Your task to perform on an android device: turn on wifi Image 0: 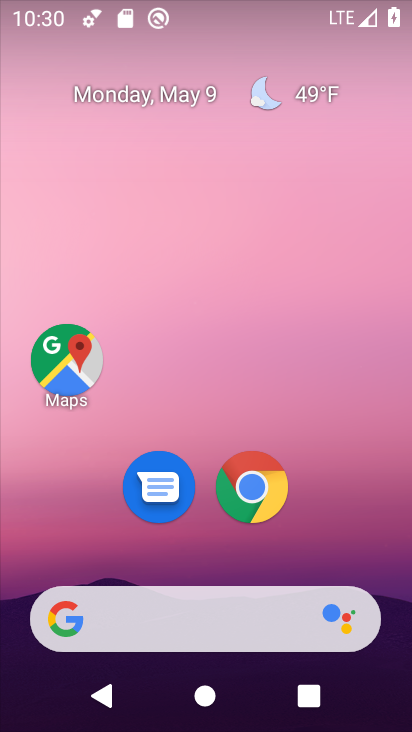
Step 0: drag from (333, 515) to (144, 81)
Your task to perform on an android device: turn on wifi Image 1: 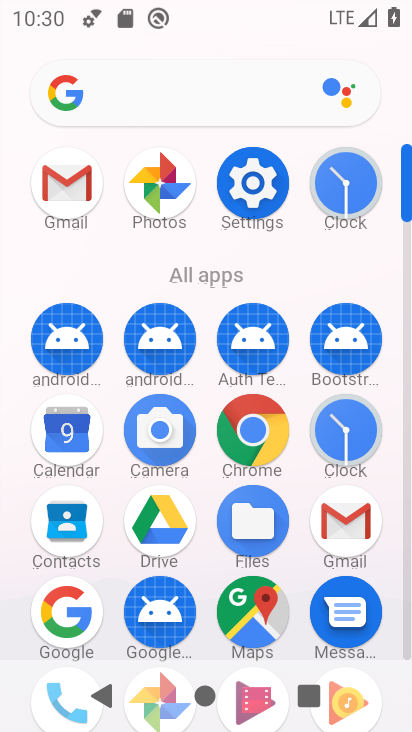
Step 1: click (250, 189)
Your task to perform on an android device: turn on wifi Image 2: 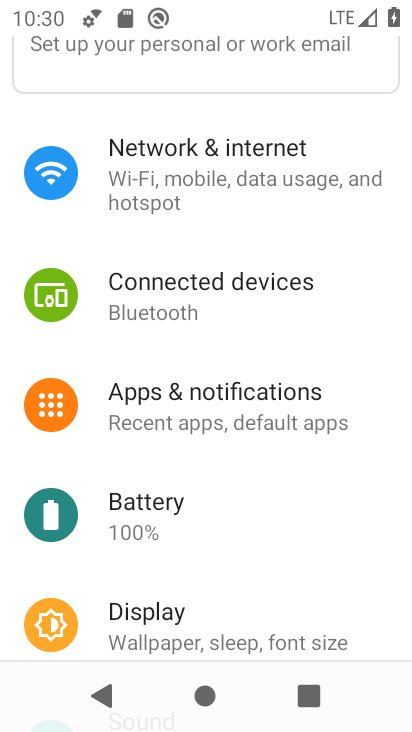
Step 2: click (232, 186)
Your task to perform on an android device: turn on wifi Image 3: 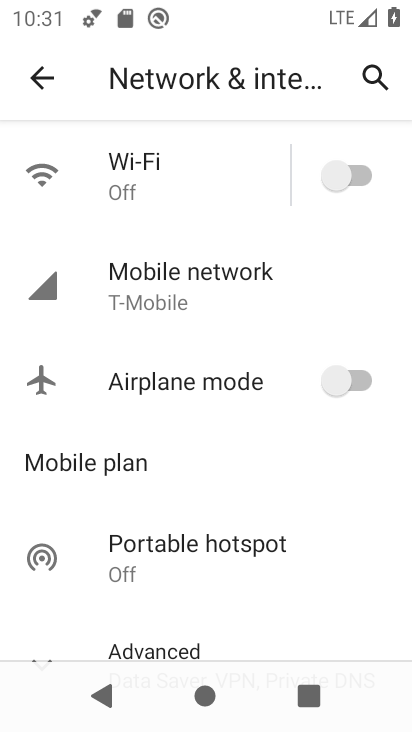
Step 3: click (336, 183)
Your task to perform on an android device: turn on wifi Image 4: 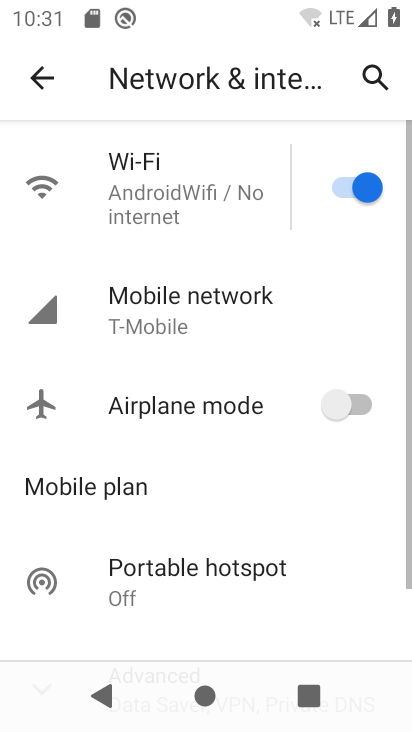
Step 4: task complete